Your task to perform on an android device: toggle show notifications on the lock screen Image 0: 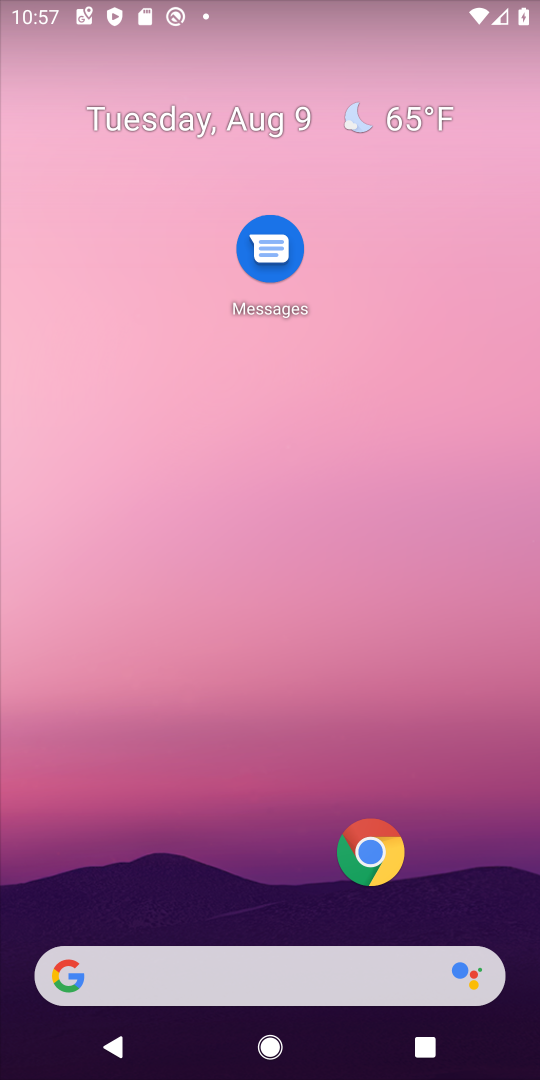
Step 0: drag from (167, 887) to (172, 60)
Your task to perform on an android device: toggle show notifications on the lock screen Image 1: 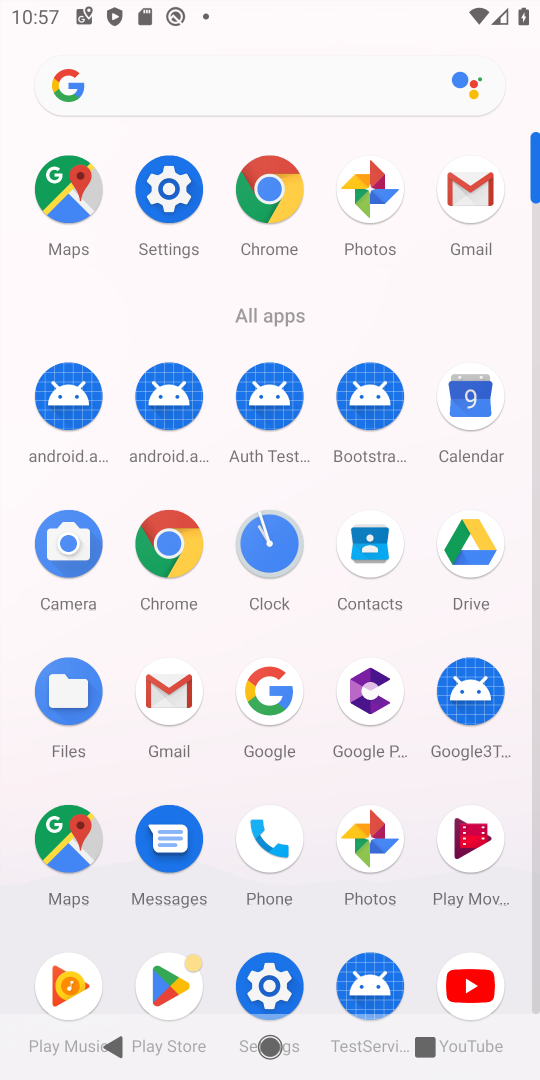
Step 1: click (169, 219)
Your task to perform on an android device: toggle show notifications on the lock screen Image 2: 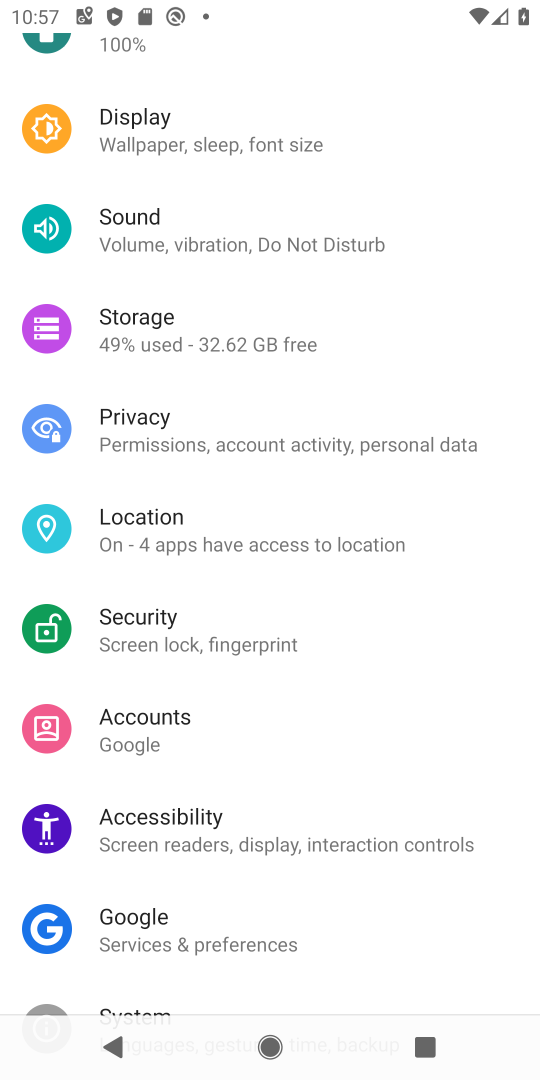
Step 2: drag from (247, 124) to (319, 682)
Your task to perform on an android device: toggle show notifications on the lock screen Image 3: 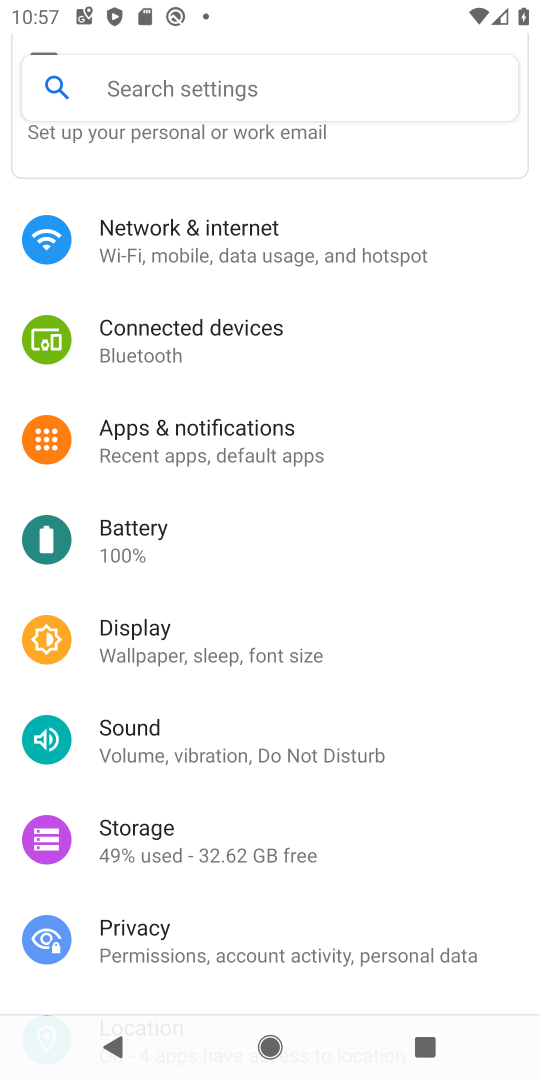
Step 3: click (221, 461)
Your task to perform on an android device: toggle show notifications on the lock screen Image 4: 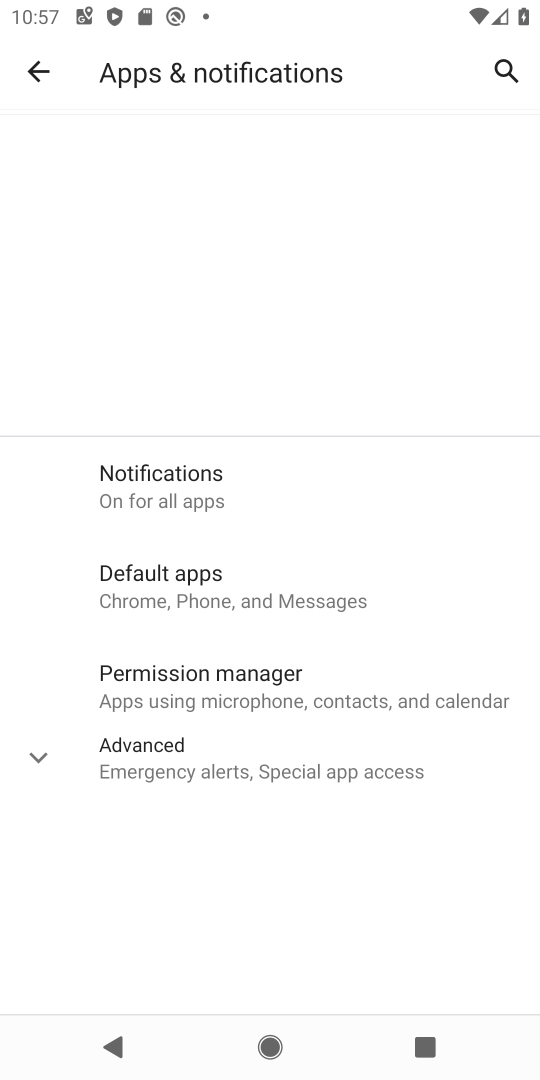
Step 4: click (221, 461)
Your task to perform on an android device: toggle show notifications on the lock screen Image 5: 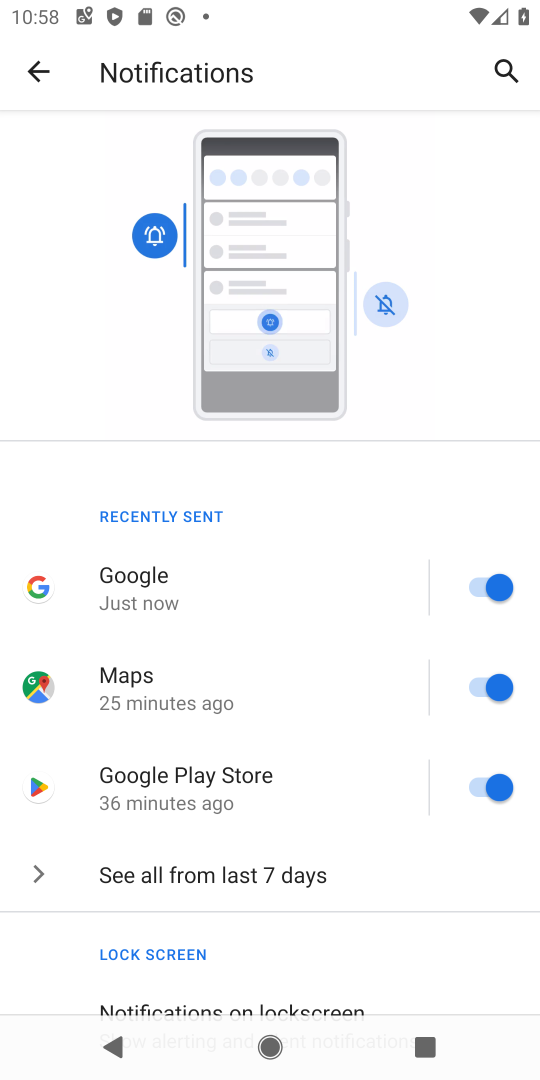
Step 5: drag from (181, 935) to (226, 352)
Your task to perform on an android device: toggle show notifications on the lock screen Image 6: 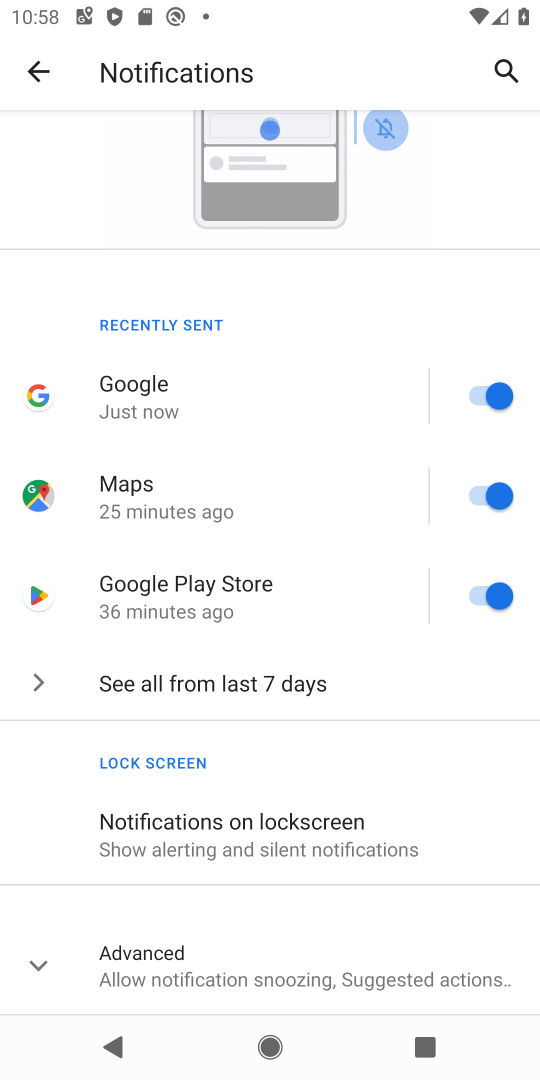
Step 6: click (285, 837)
Your task to perform on an android device: toggle show notifications on the lock screen Image 7: 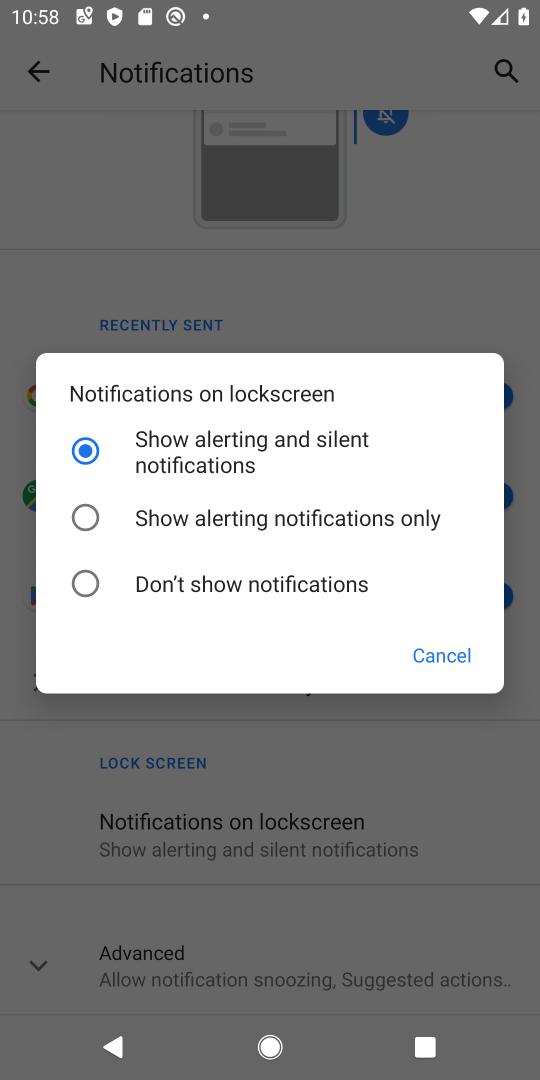
Step 7: click (274, 521)
Your task to perform on an android device: toggle show notifications on the lock screen Image 8: 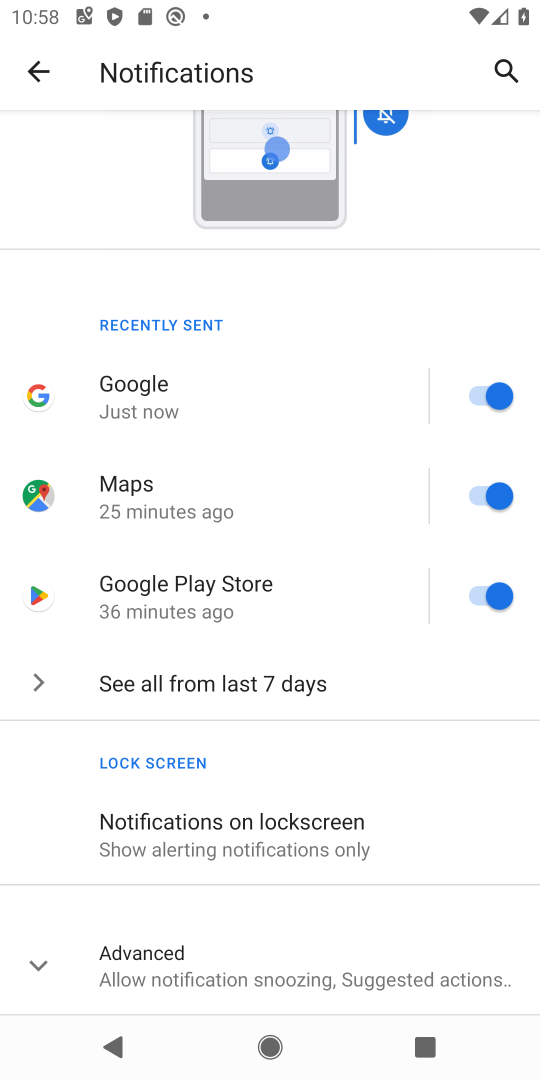
Step 8: task complete